Your task to perform on an android device: add a label to a message in the gmail app Image 0: 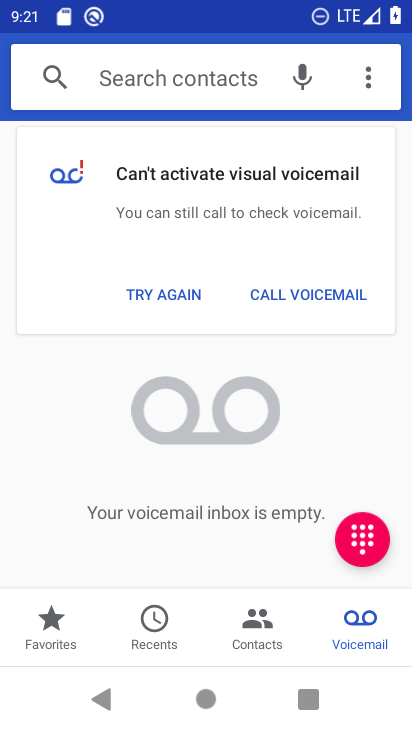
Step 0: press home button
Your task to perform on an android device: add a label to a message in the gmail app Image 1: 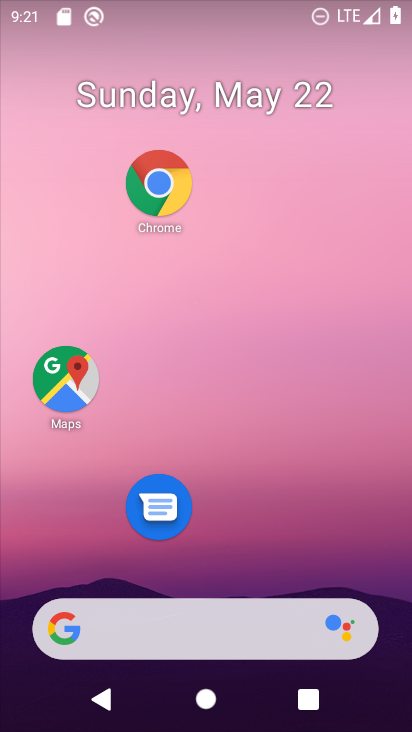
Step 1: drag from (249, 687) to (189, 9)
Your task to perform on an android device: add a label to a message in the gmail app Image 2: 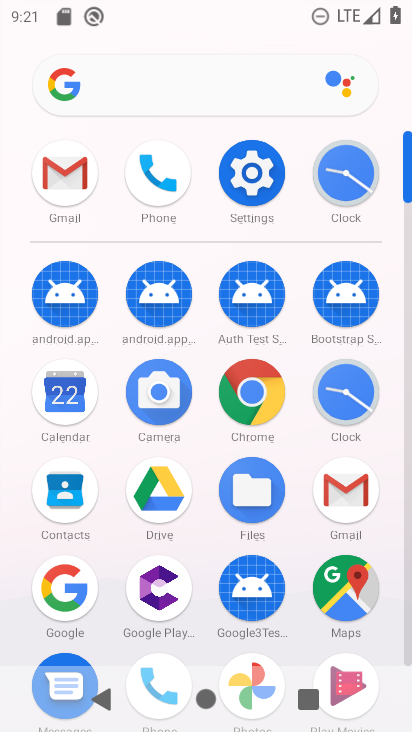
Step 2: click (62, 180)
Your task to perform on an android device: add a label to a message in the gmail app Image 3: 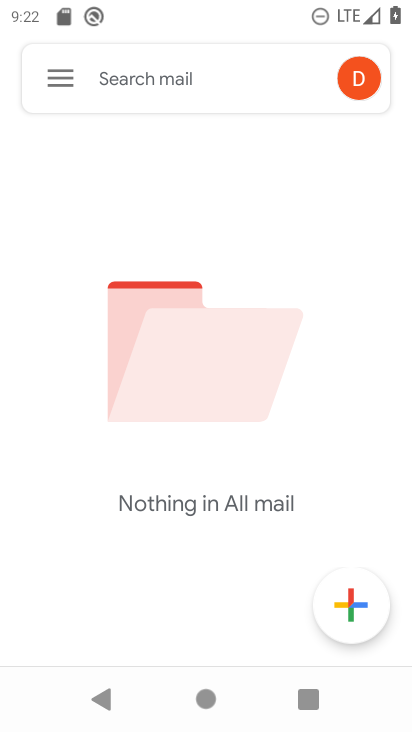
Step 3: task complete